Your task to perform on an android device: turn notification dots on Image 0: 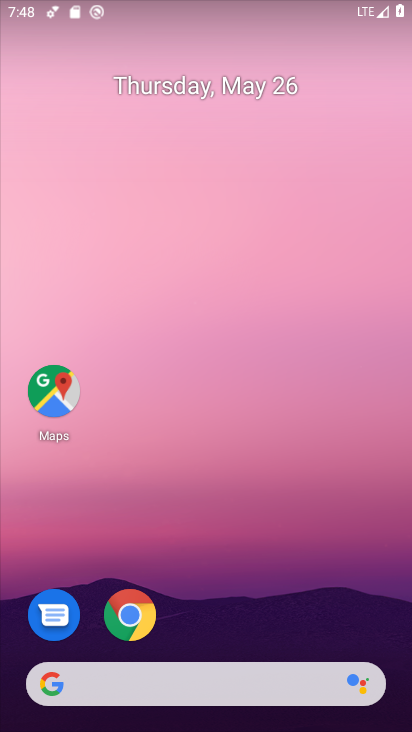
Step 0: drag from (203, 632) to (218, 247)
Your task to perform on an android device: turn notification dots on Image 1: 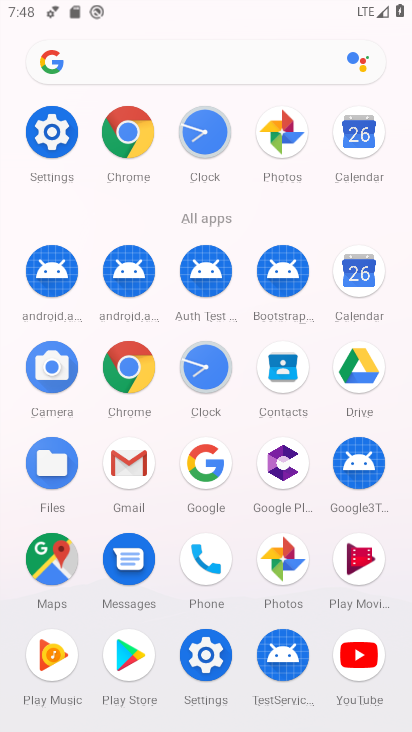
Step 1: click (48, 126)
Your task to perform on an android device: turn notification dots on Image 2: 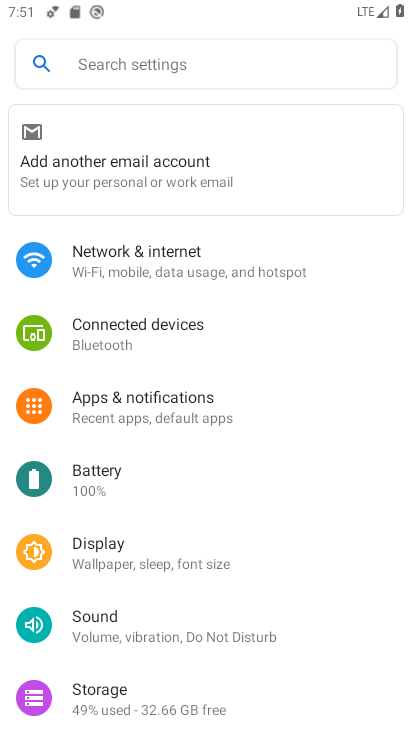
Step 2: click (184, 46)
Your task to perform on an android device: turn notification dots on Image 3: 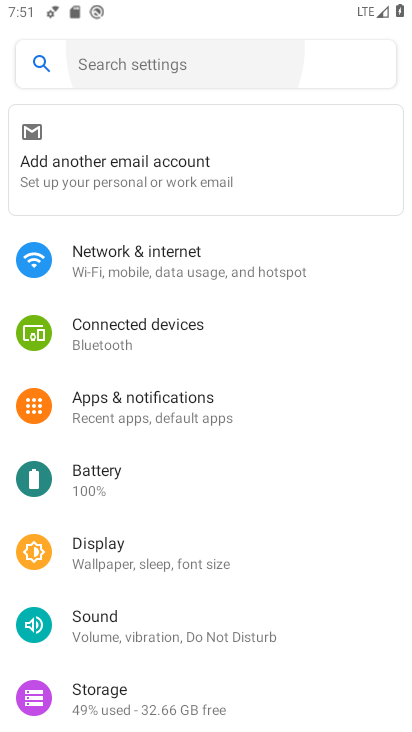
Step 3: click (183, 55)
Your task to perform on an android device: turn notification dots on Image 4: 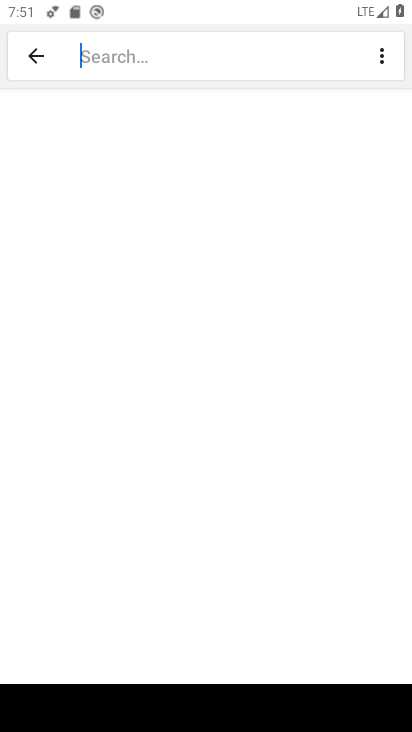
Step 4: click (202, 52)
Your task to perform on an android device: turn notification dots on Image 5: 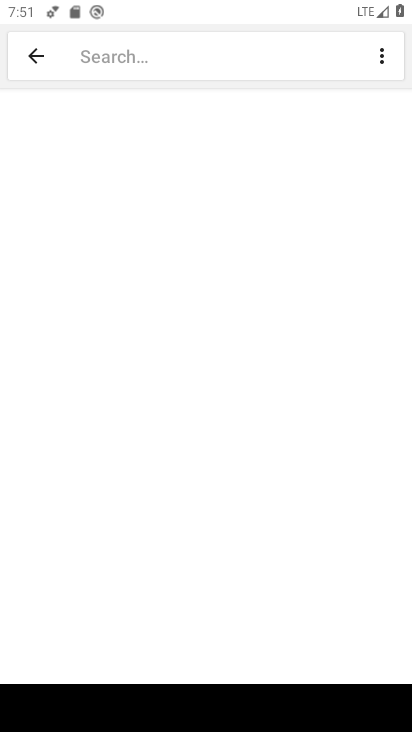
Step 5: type "notification dots"
Your task to perform on an android device: turn notification dots on Image 6: 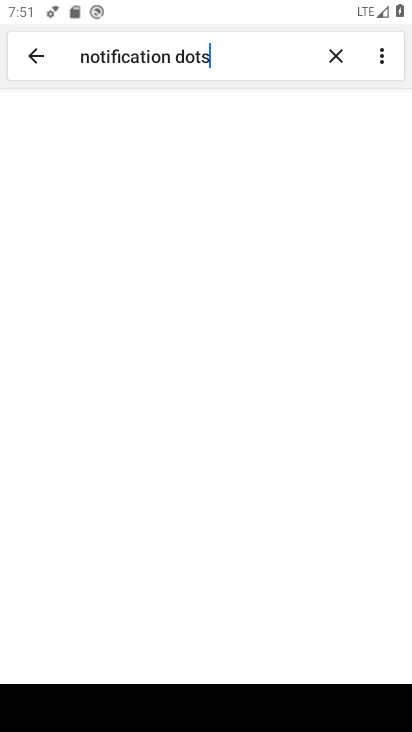
Step 6: drag from (183, 182) to (203, 297)
Your task to perform on an android device: turn notification dots on Image 7: 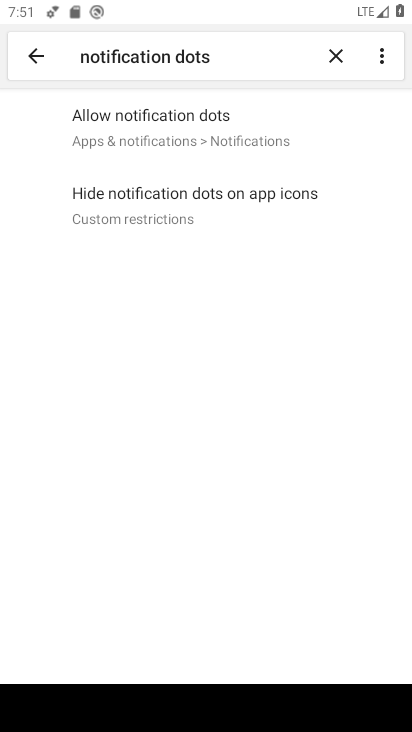
Step 7: click (182, 119)
Your task to perform on an android device: turn notification dots on Image 8: 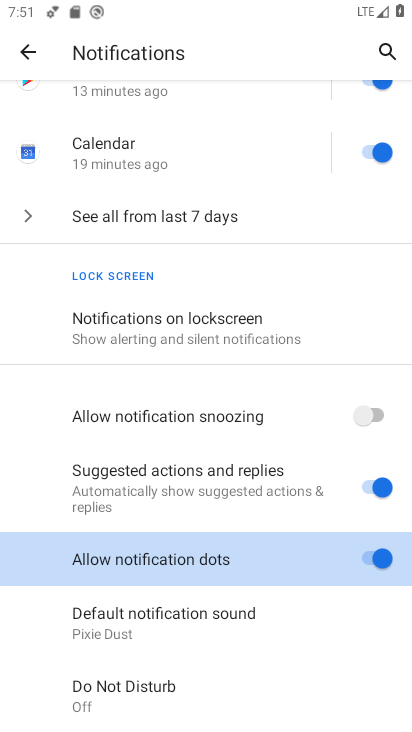
Step 8: task complete